Your task to perform on an android device: Toggle the flashlight Image 0: 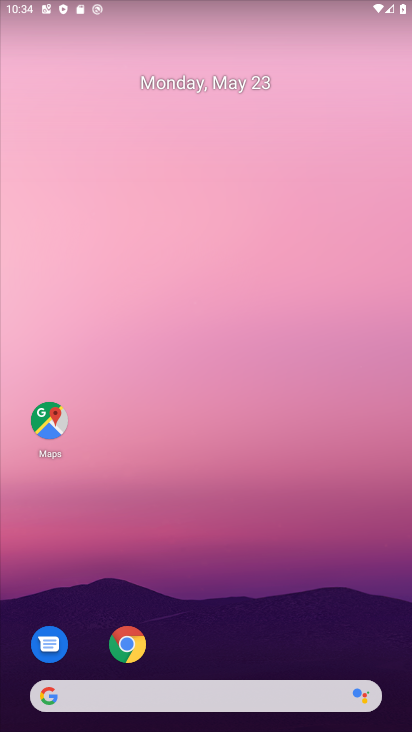
Step 0: drag from (292, 661) to (219, 108)
Your task to perform on an android device: Toggle the flashlight Image 1: 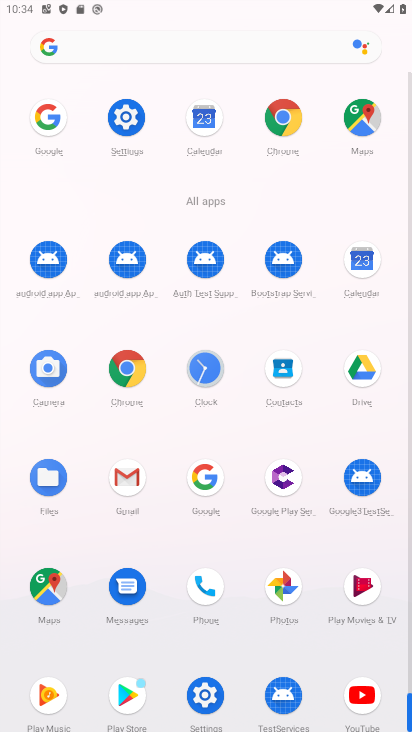
Step 1: task complete